Your task to perform on an android device: check the backup settings in the google photos Image 0: 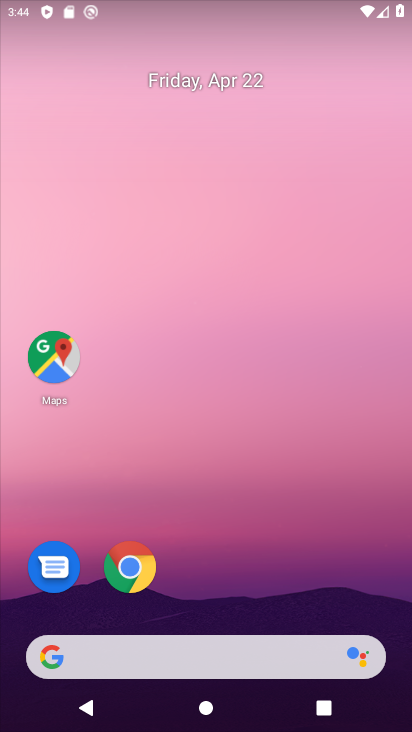
Step 0: drag from (316, 568) to (256, 136)
Your task to perform on an android device: check the backup settings in the google photos Image 1: 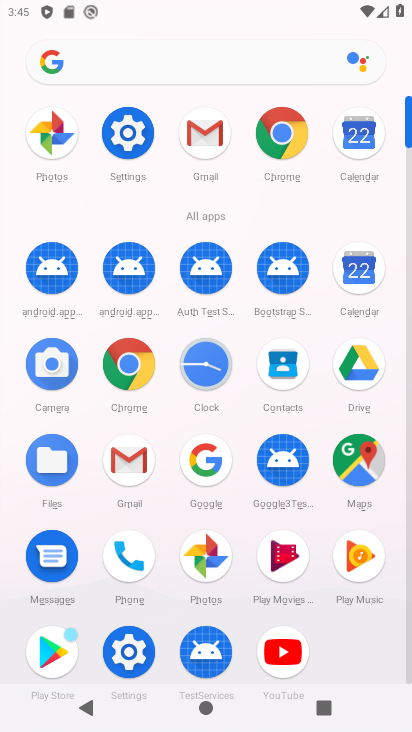
Step 1: click (52, 131)
Your task to perform on an android device: check the backup settings in the google photos Image 2: 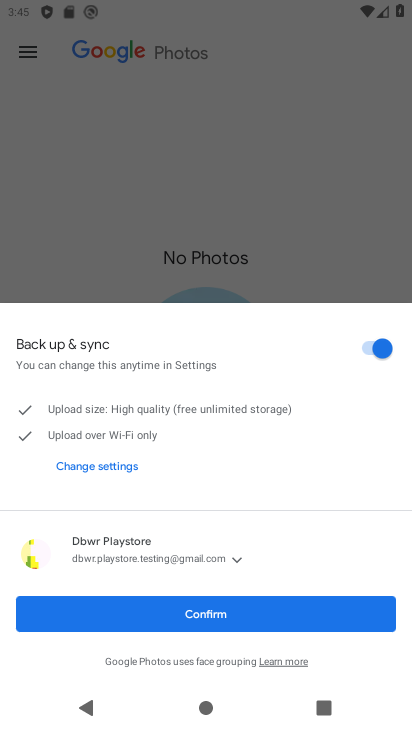
Step 2: click (153, 605)
Your task to perform on an android device: check the backup settings in the google photos Image 3: 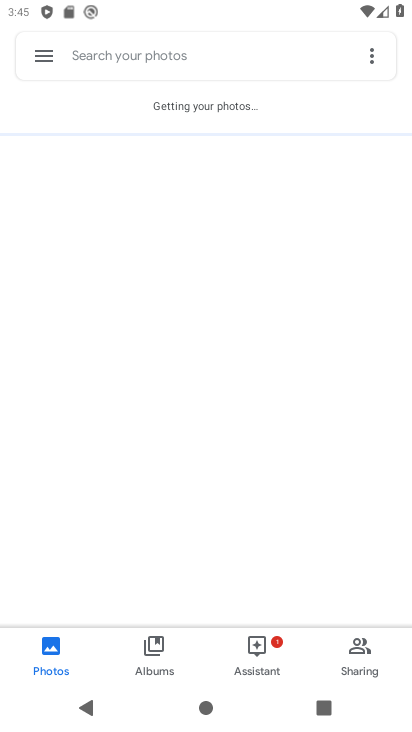
Step 3: click (44, 52)
Your task to perform on an android device: check the backup settings in the google photos Image 4: 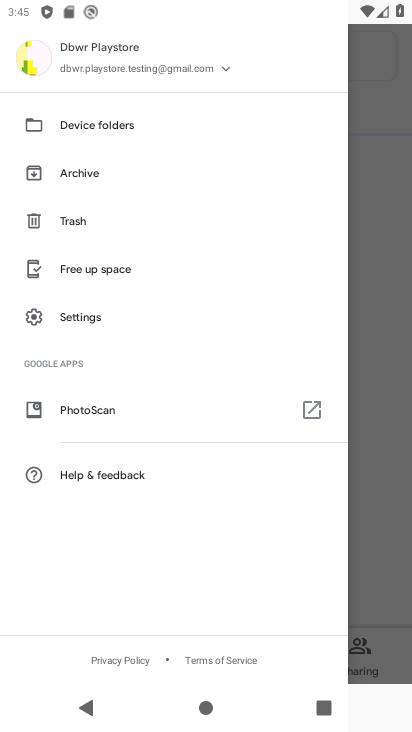
Step 4: click (104, 316)
Your task to perform on an android device: check the backup settings in the google photos Image 5: 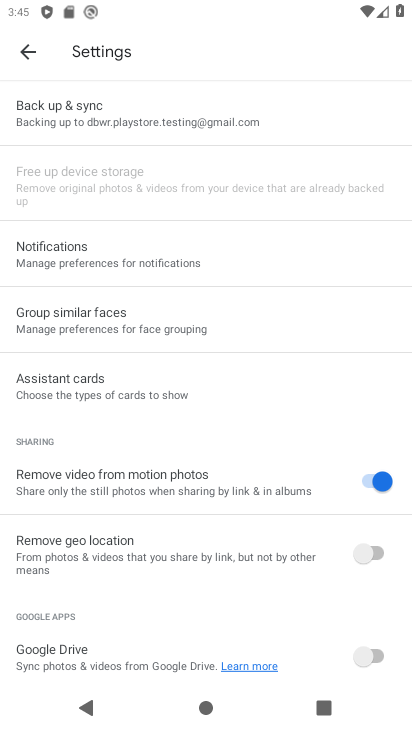
Step 5: click (146, 121)
Your task to perform on an android device: check the backup settings in the google photos Image 6: 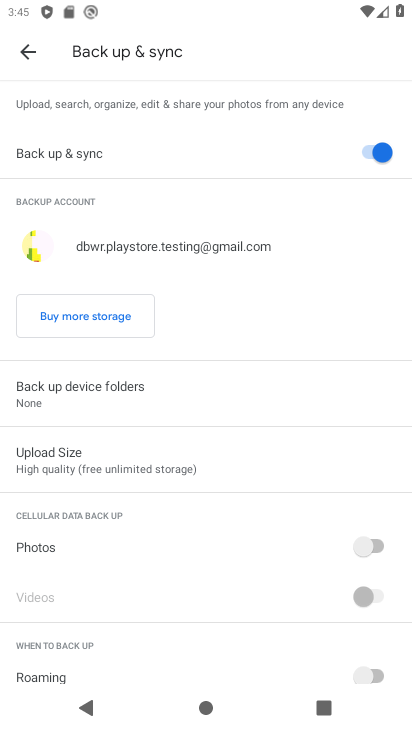
Step 6: task complete